Your task to perform on an android device: Search for flights from Seoul to Mexico city Image 0: 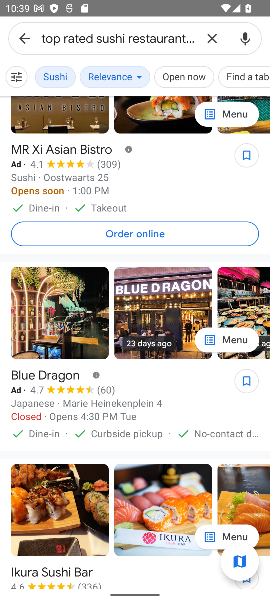
Step 0: press home button
Your task to perform on an android device: Search for flights from Seoul to Mexico city Image 1: 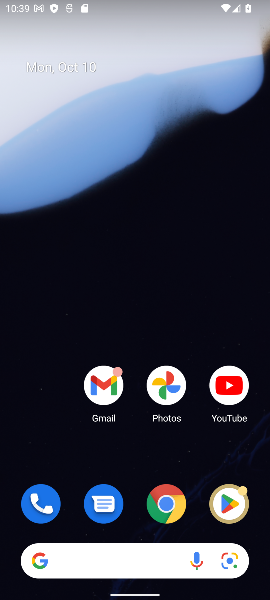
Step 1: click (167, 500)
Your task to perform on an android device: Search for flights from Seoul to Mexico city Image 2: 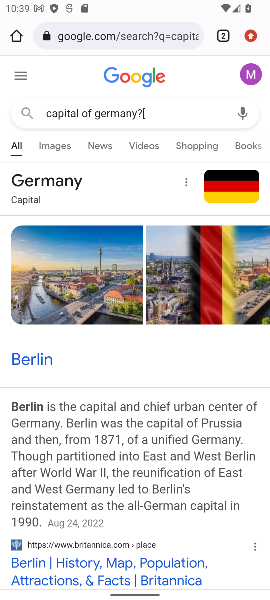
Step 2: click (139, 26)
Your task to perform on an android device: Search for flights from Seoul to Mexico city Image 3: 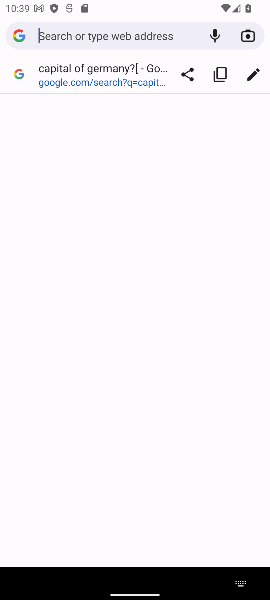
Step 3: type "flights from seoul to maxico city"
Your task to perform on an android device: Search for flights from Seoul to Mexico city Image 4: 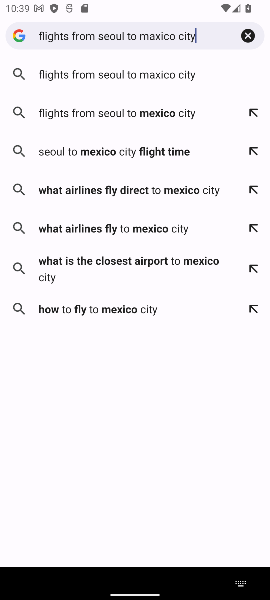
Step 4: click (65, 65)
Your task to perform on an android device: Search for flights from Seoul to Mexico city Image 5: 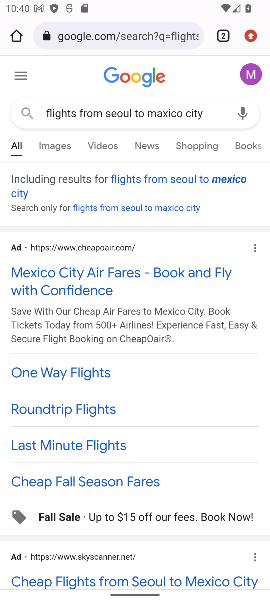
Step 5: drag from (164, 455) to (145, 129)
Your task to perform on an android device: Search for flights from Seoul to Mexico city Image 6: 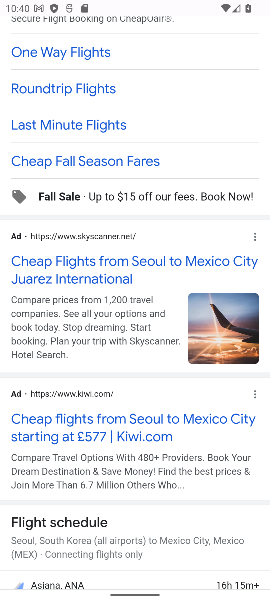
Step 6: click (53, 266)
Your task to perform on an android device: Search for flights from Seoul to Mexico city Image 7: 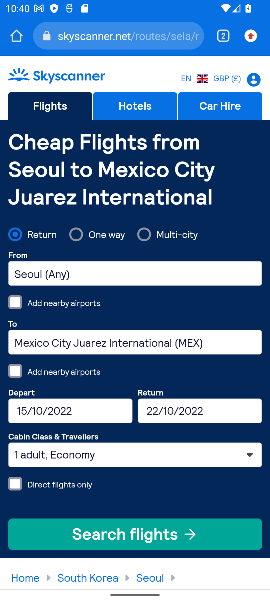
Step 7: click (135, 536)
Your task to perform on an android device: Search for flights from Seoul to Mexico city Image 8: 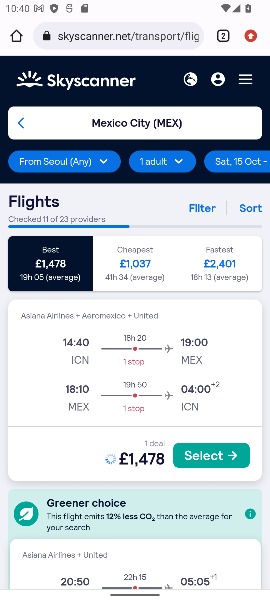
Step 8: task complete